Your task to perform on an android device: turn on showing notifications on the lock screen Image 0: 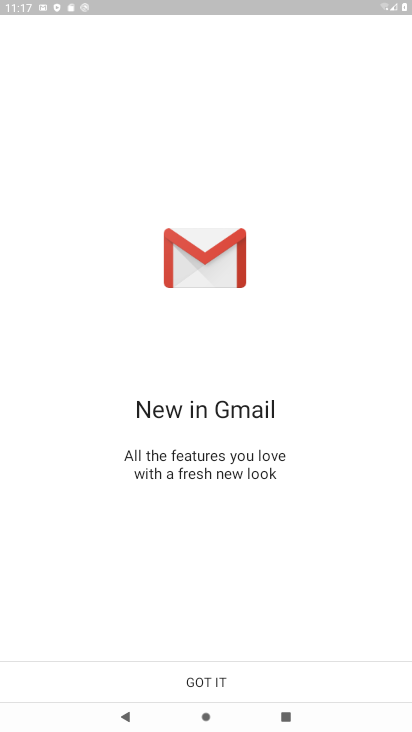
Step 0: press home button
Your task to perform on an android device: turn on showing notifications on the lock screen Image 1: 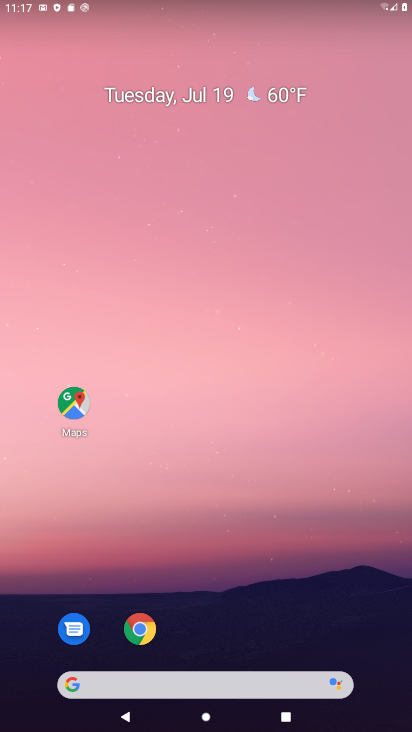
Step 1: drag from (263, 590) to (264, 256)
Your task to perform on an android device: turn on showing notifications on the lock screen Image 2: 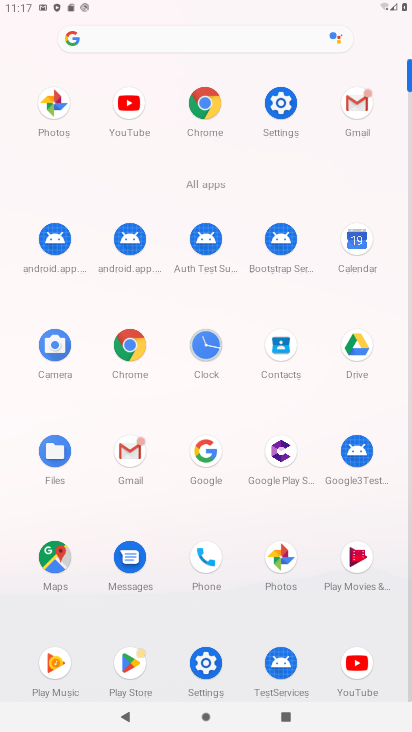
Step 2: click (293, 102)
Your task to perform on an android device: turn on showing notifications on the lock screen Image 3: 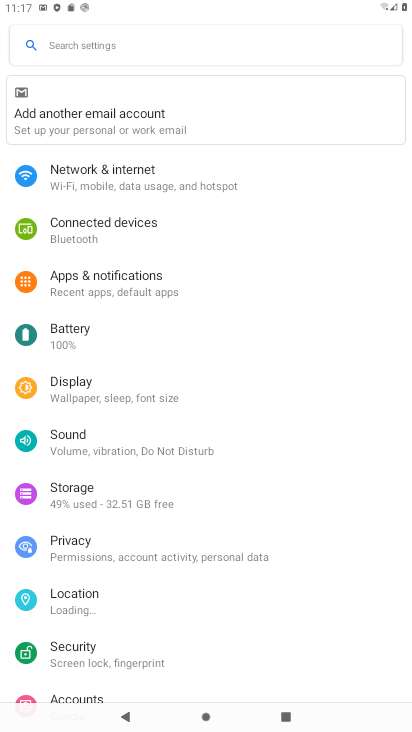
Step 3: click (127, 293)
Your task to perform on an android device: turn on showing notifications on the lock screen Image 4: 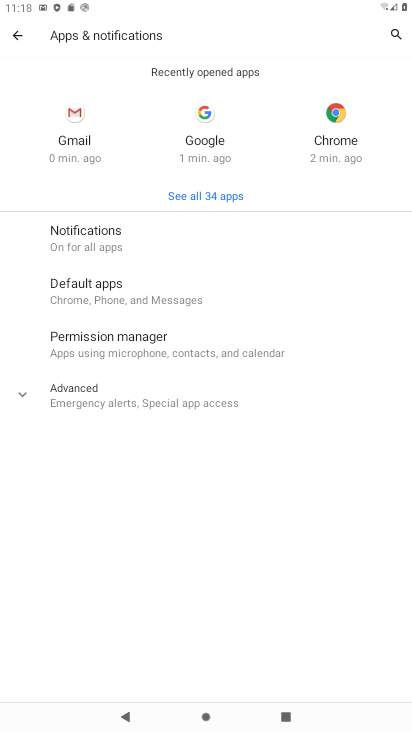
Step 4: click (129, 242)
Your task to perform on an android device: turn on showing notifications on the lock screen Image 5: 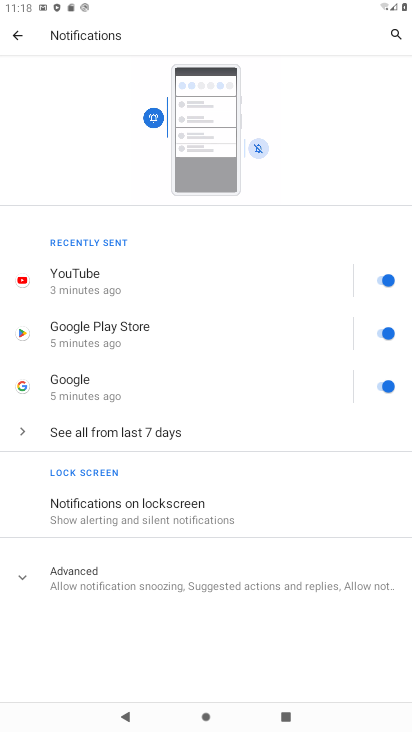
Step 5: click (171, 513)
Your task to perform on an android device: turn on showing notifications on the lock screen Image 6: 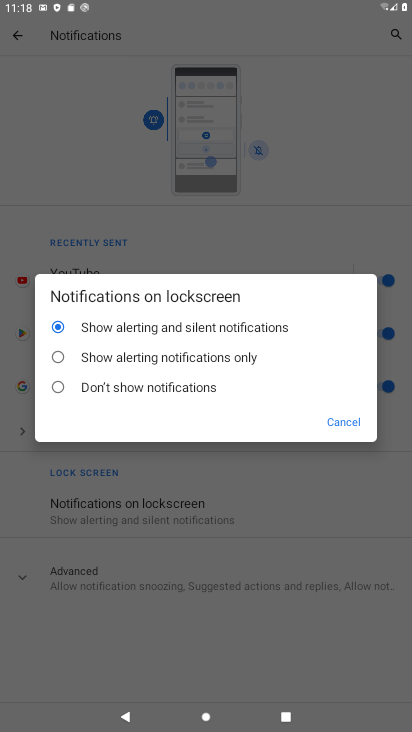
Step 6: click (217, 328)
Your task to perform on an android device: turn on showing notifications on the lock screen Image 7: 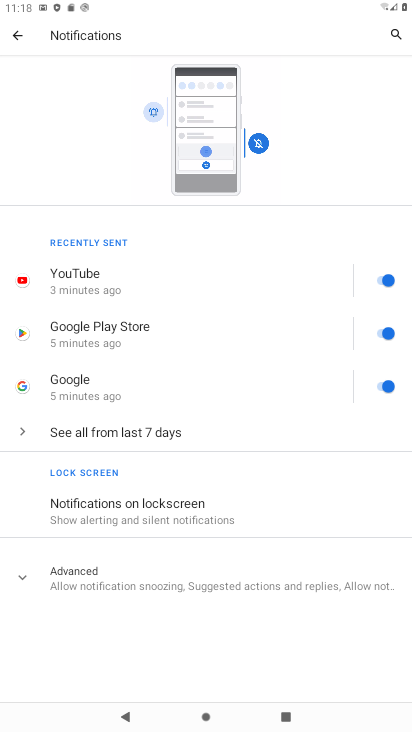
Step 7: task complete